Your task to perform on an android device: Go to Android settings Image 0: 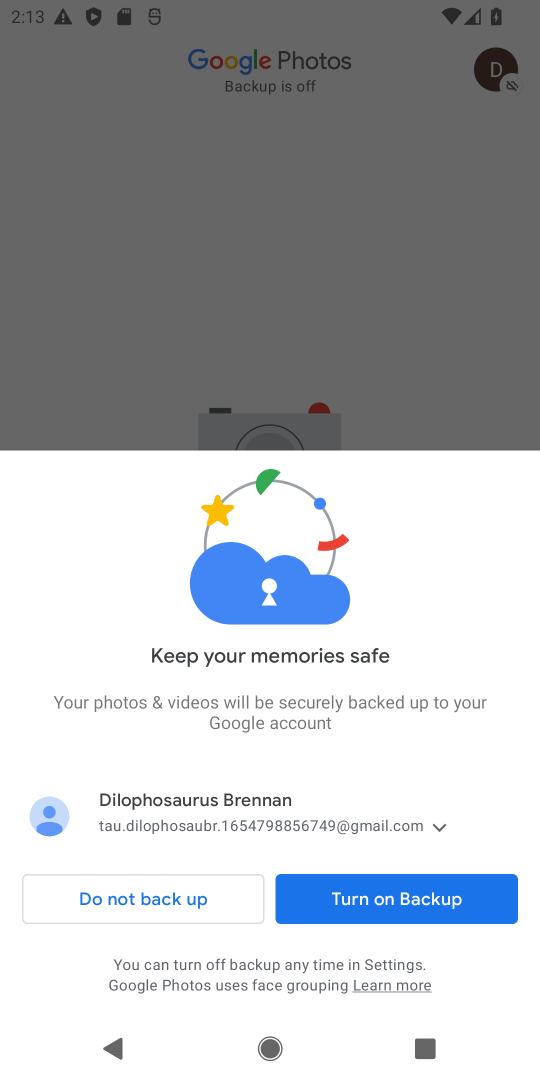
Step 0: press home button
Your task to perform on an android device: Go to Android settings Image 1: 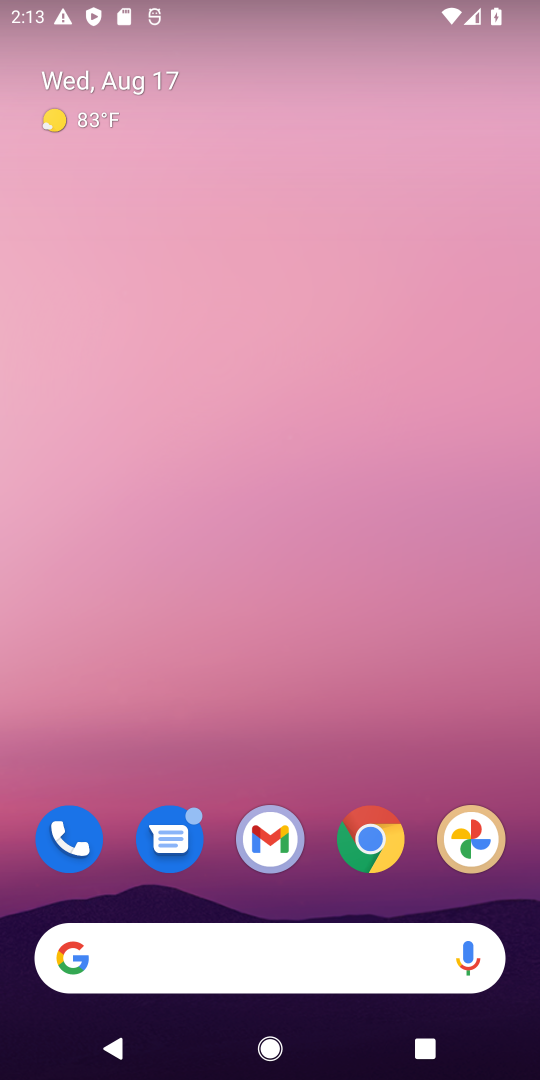
Step 1: drag from (323, 909) to (241, 74)
Your task to perform on an android device: Go to Android settings Image 2: 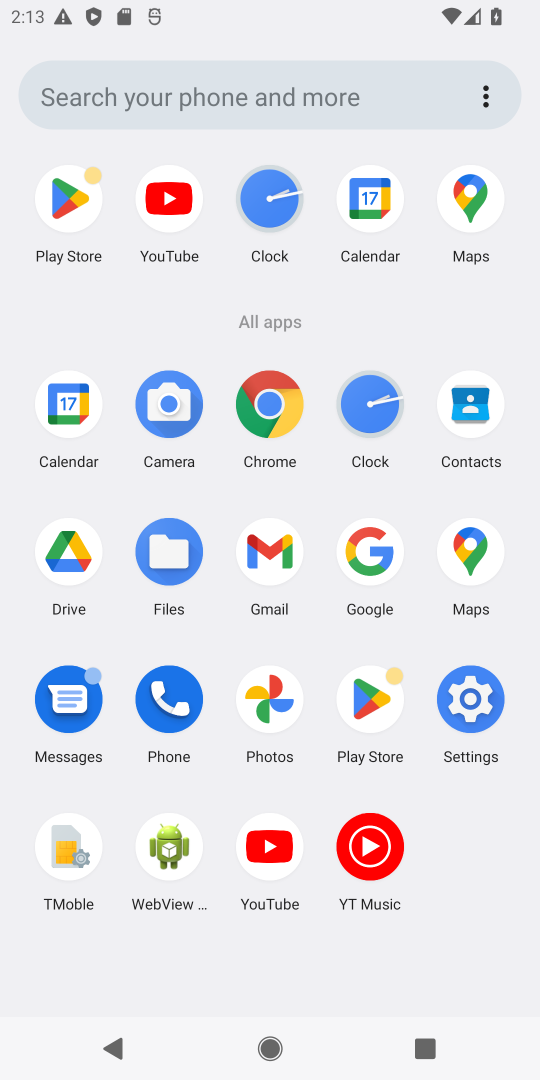
Step 2: click (464, 706)
Your task to perform on an android device: Go to Android settings Image 3: 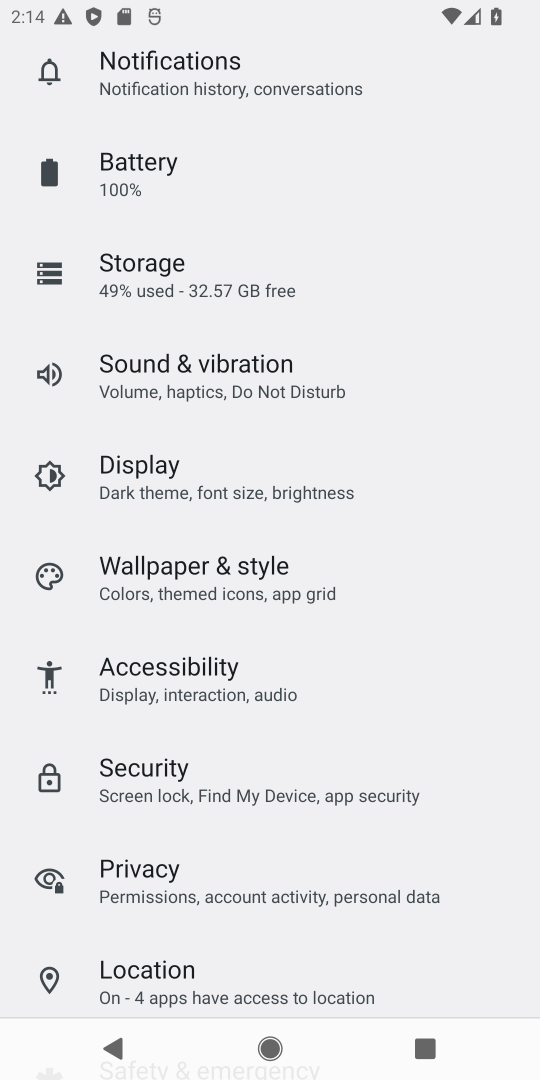
Step 3: task complete